Your task to perform on an android device: change the clock display to analog Image 0: 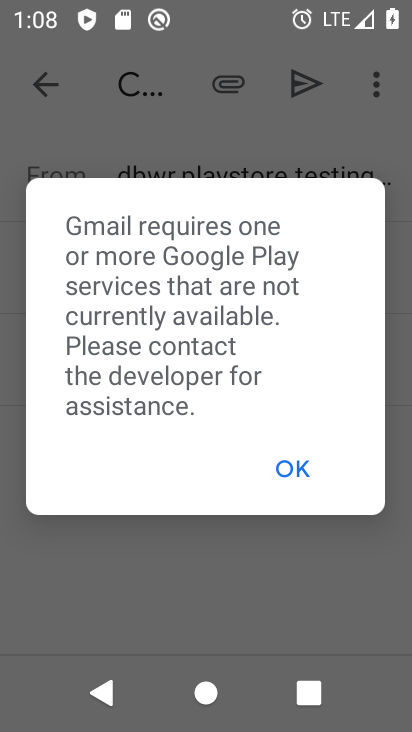
Step 0: press home button
Your task to perform on an android device: change the clock display to analog Image 1: 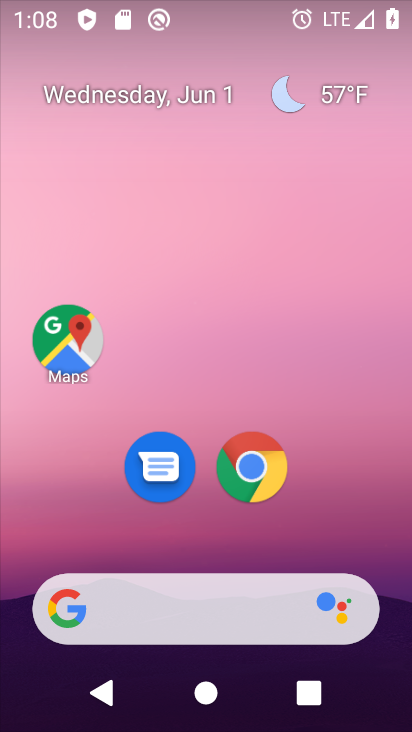
Step 1: drag from (382, 521) to (380, 143)
Your task to perform on an android device: change the clock display to analog Image 2: 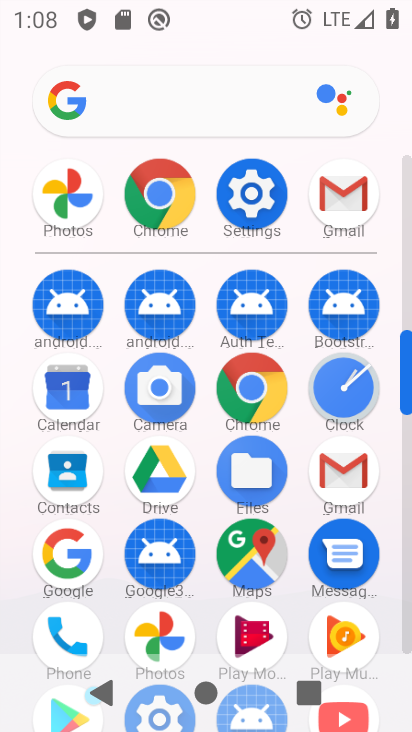
Step 2: click (351, 408)
Your task to perform on an android device: change the clock display to analog Image 3: 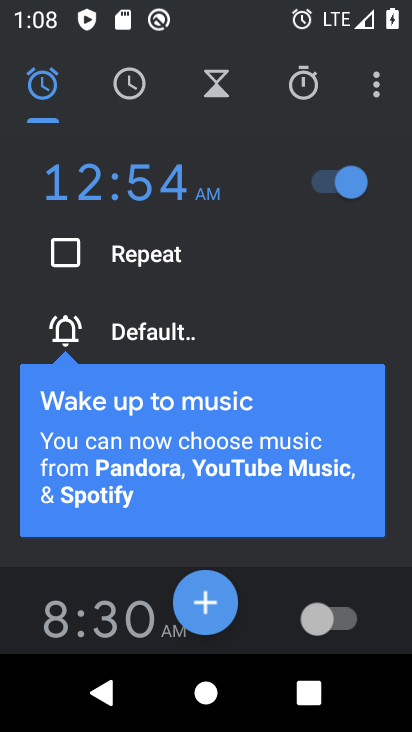
Step 3: click (377, 90)
Your task to perform on an android device: change the clock display to analog Image 4: 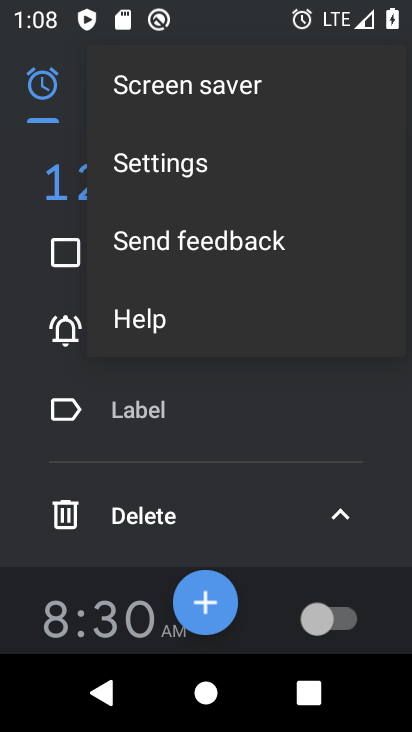
Step 4: click (215, 174)
Your task to perform on an android device: change the clock display to analog Image 5: 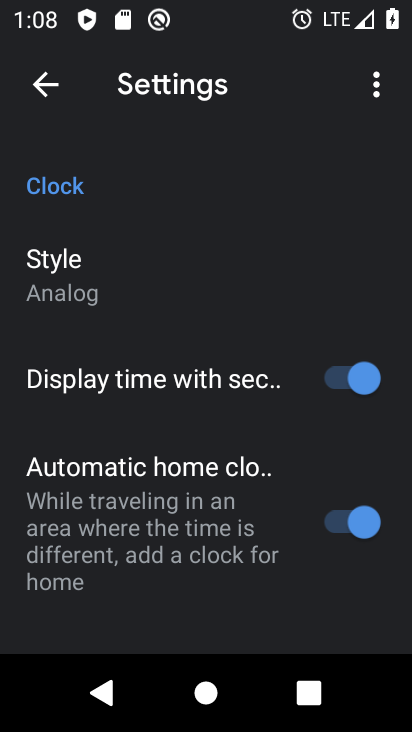
Step 5: task complete